Your task to perform on an android device: Go to Wikipedia Image 0: 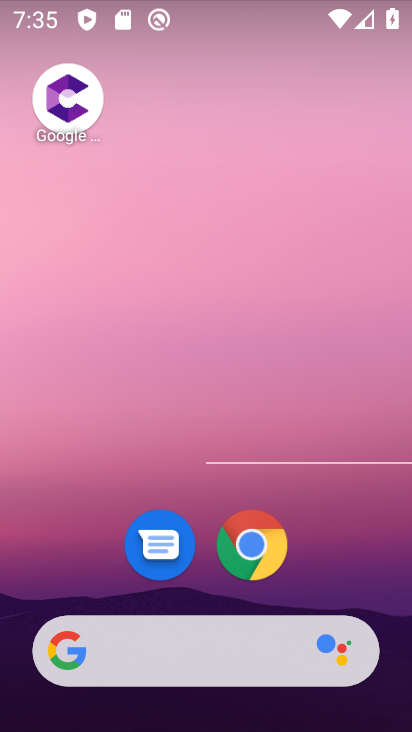
Step 0: click (246, 533)
Your task to perform on an android device: Go to Wikipedia Image 1: 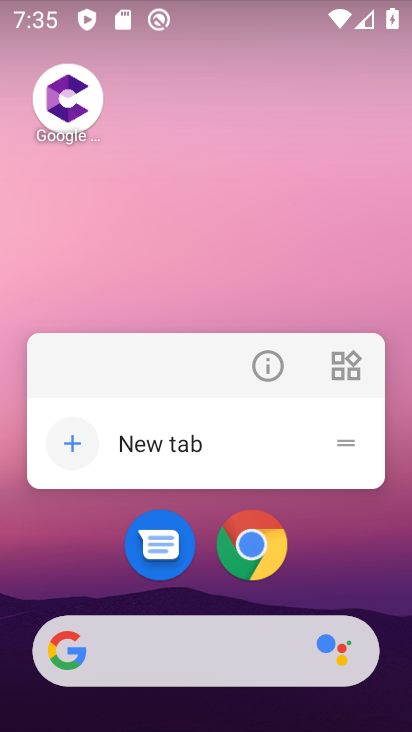
Step 1: click (258, 541)
Your task to perform on an android device: Go to Wikipedia Image 2: 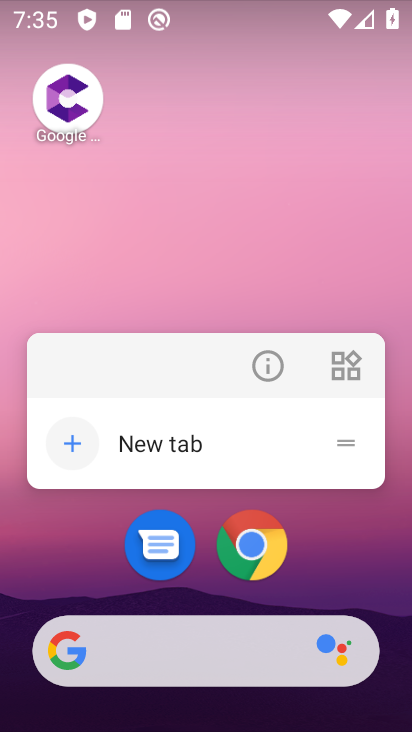
Step 2: click (253, 539)
Your task to perform on an android device: Go to Wikipedia Image 3: 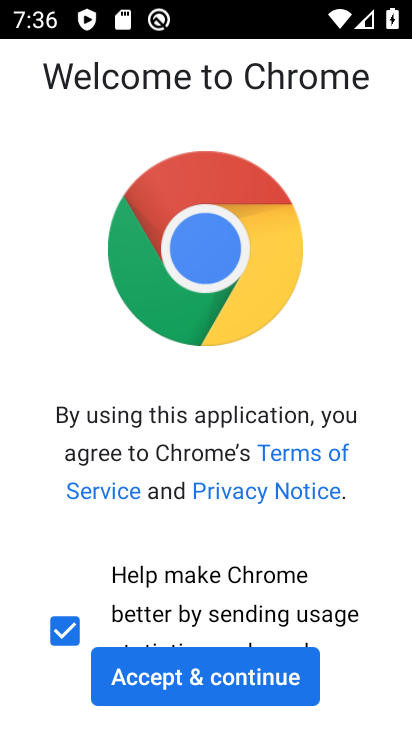
Step 3: click (189, 678)
Your task to perform on an android device: Go to Wikipedia Image 4: 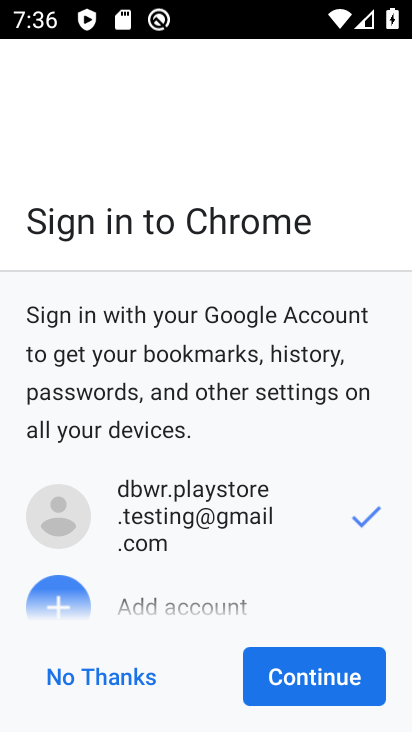
Step 4: click (137, 675)
Your task to perform on an android device: Go to Wikipedia Image 5: 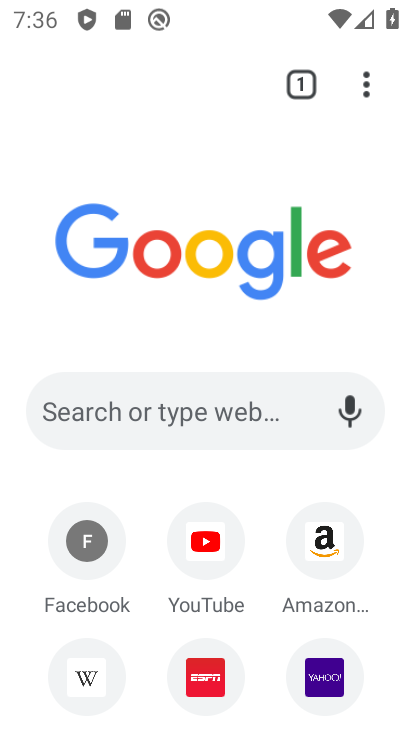
Step 5: click (78, 682)
Your task to perform on an android device: Go to Wikipedia Image 6: 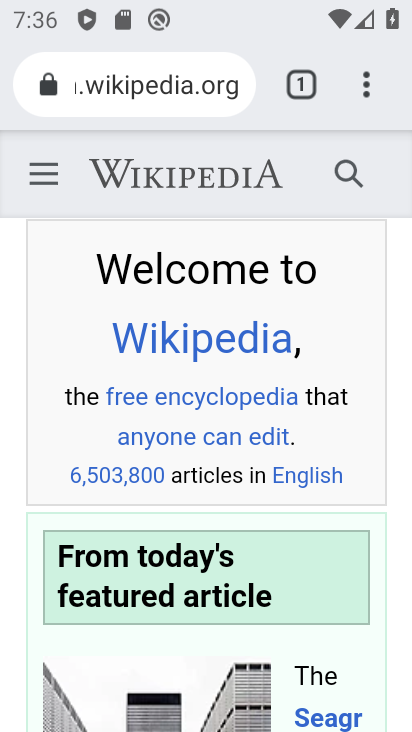
Step 6: task complete